Your task to perform on an android device: Open Youtube and go to the subscriptions tab Image 0: 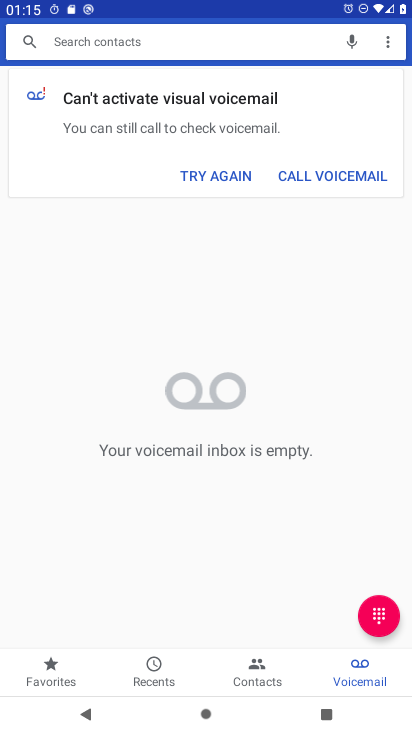
Step 0: press home button
Your task to perform on an android device: Open Youtube and go to the subscriptions tab Image 1: 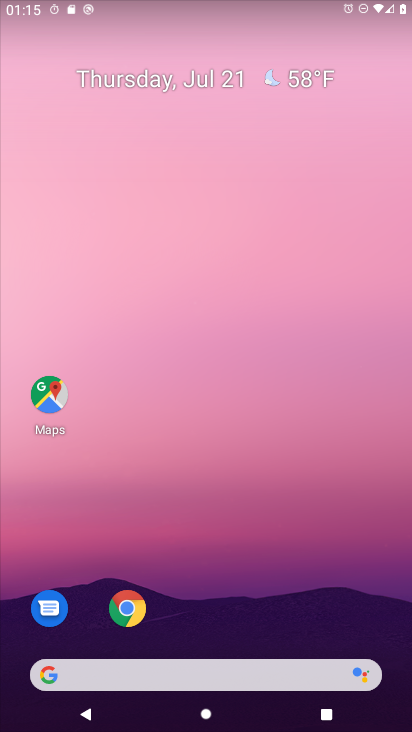
Step 1: drag from (188, 596) to (155, 99)
Your task to perform on an android device: Open Youtube and go to the subscriptions tab Image 2: 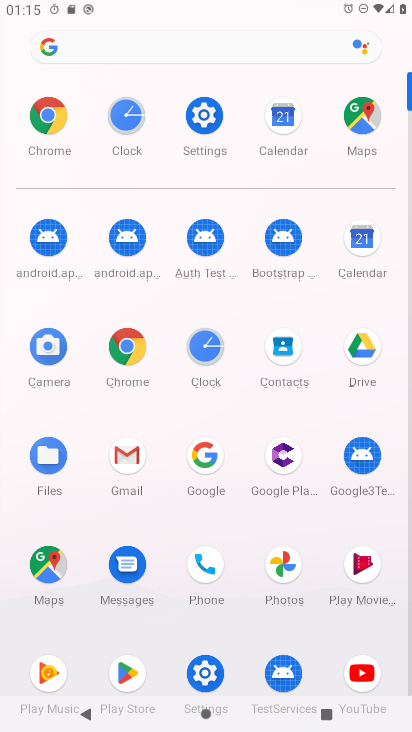
Step 2: click (378, 692)
Your task to perform on an android device: Open Youtube and go to the subscriptions tab Image 3: 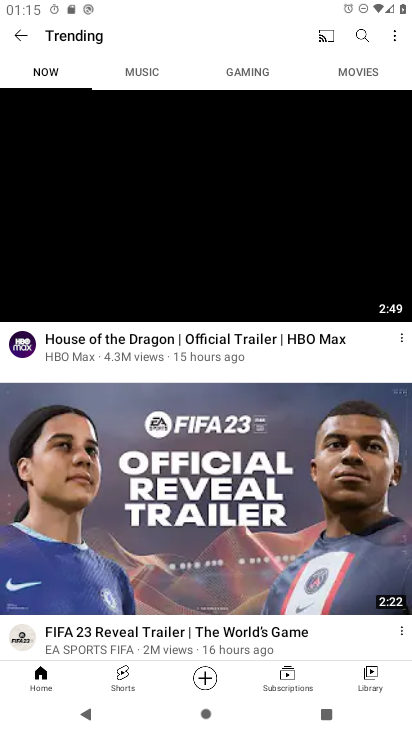
Step 3: click (291, 675)
Your task to perform on an android device: Open Youtube and go to the subscriptions tab Image 4: 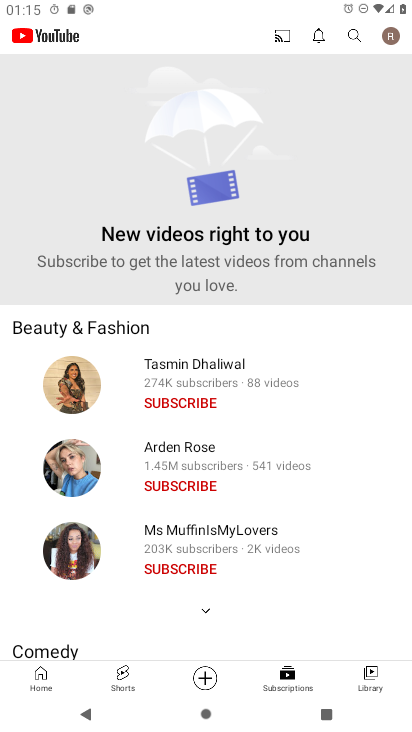
Step 4: task complete